Your task to perform on an android device: Do I have any events tomorrow? Image 0: 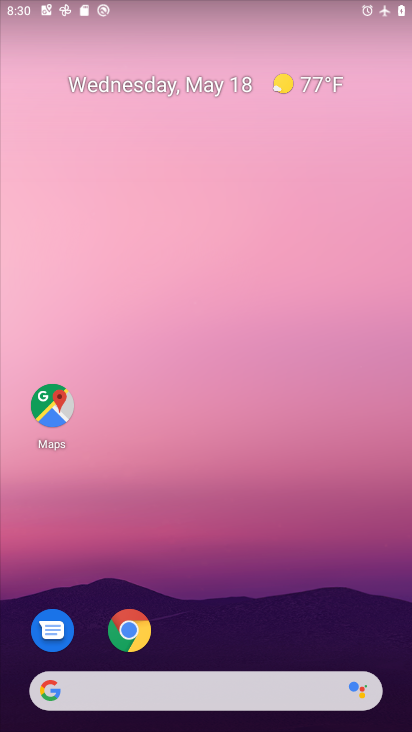
Step 0: drag from (314, 488) to (317, 160)
Your task to perform on an android device: Do I have any events tomorrow? Image 1: 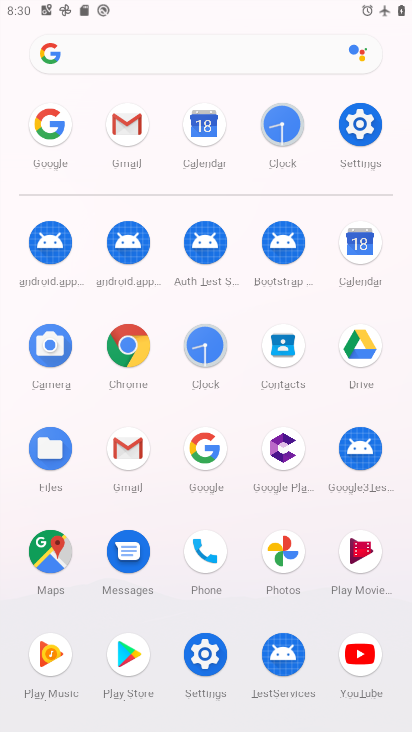
Step 1: click (378, 247)
Your task to perform on an android device: Do I have any events tomorrow? Image 2: 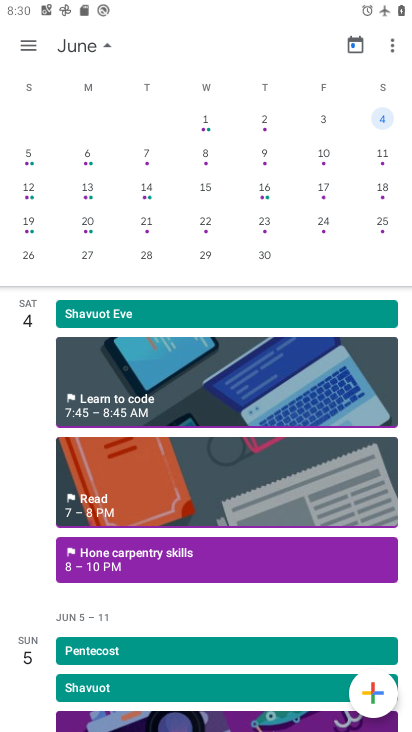
Step 2: drag from (86, 187) to (322, 173)
Your task to perform on an android device: Do I have any events tomorrow? Image 3: 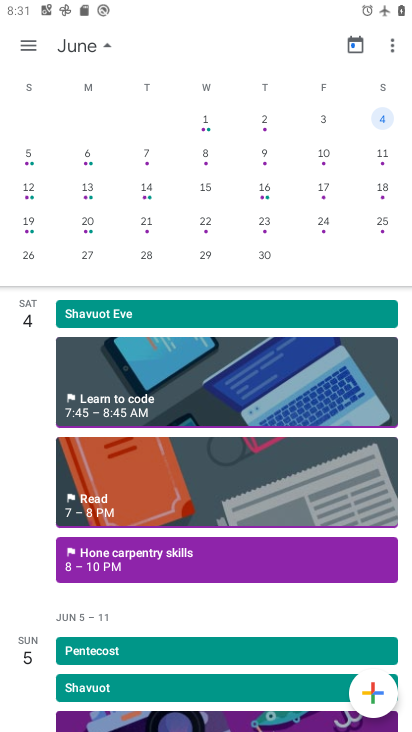
Step 3: drag from (49, 200) to (408, 218)
Your task to perform on an android device: Do I have any events tomorrow? Image 4: 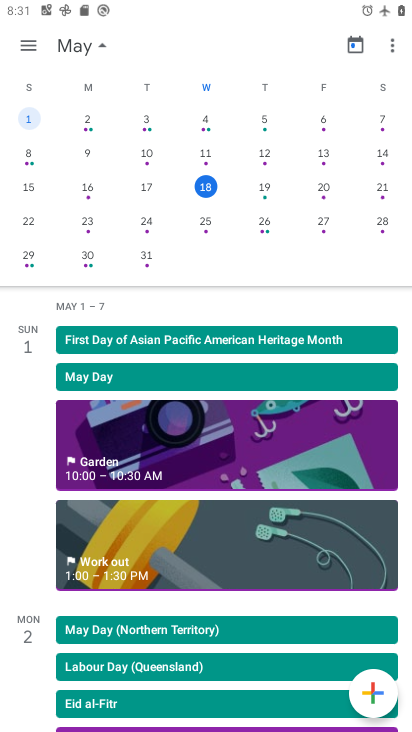
Step 4: click (264, 187)
Your task to perform on an android device: Do I have any events tomorrow? Image 5: 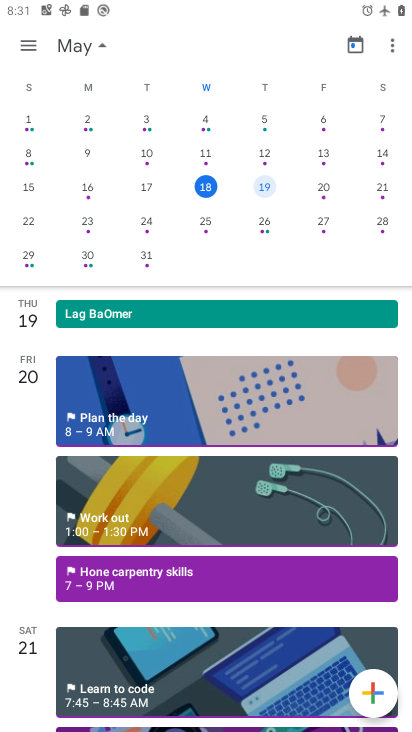
Step 5: click (270, 189)
Your task to perform on an android device: Do I have any events tomorrow? Image 6: 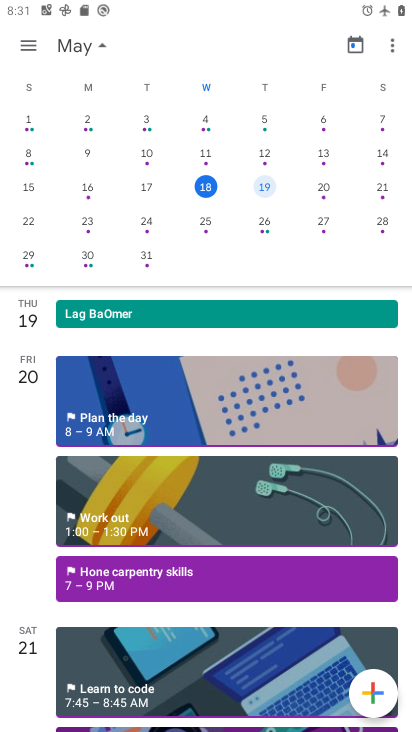
Step 6: task complete